Your task to perform on an android device: See recent photos Image 0: 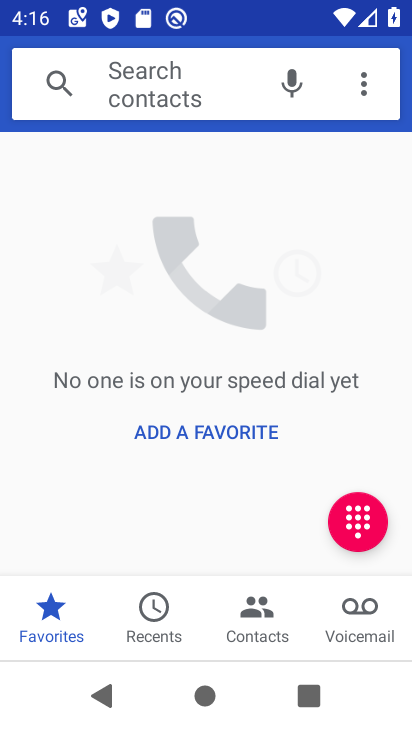
Step 0: press home button
Your task to perform on an android device: See recent photos Image 1: 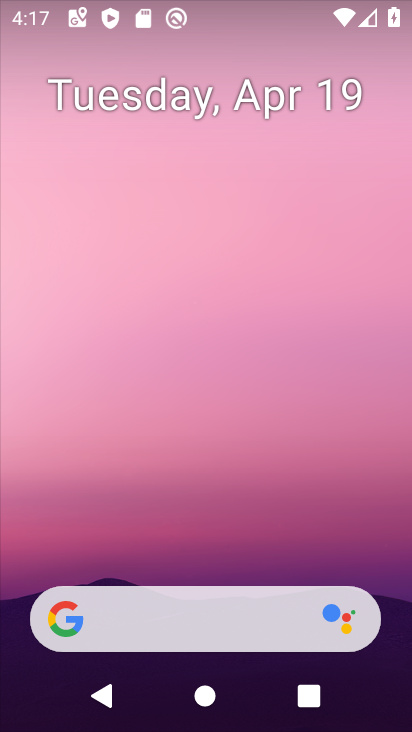
Step 1: drag from (186, 529) to (185, 131)
Your task to perform on an android device: See recent photos Image 2: 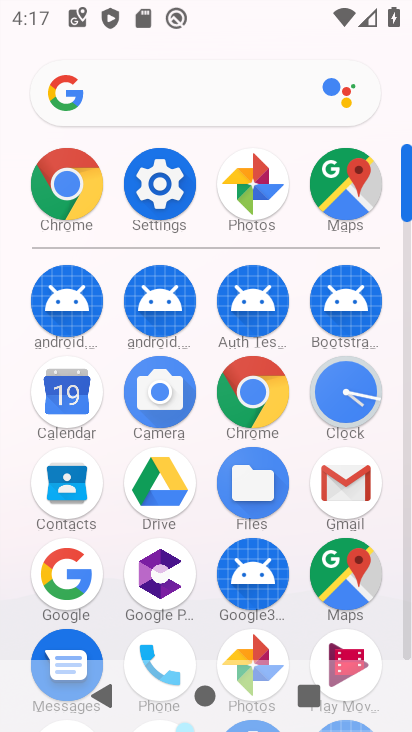
Step 2: click (252, 185)
Your task to perform on an android device: See recent photos Image 3: 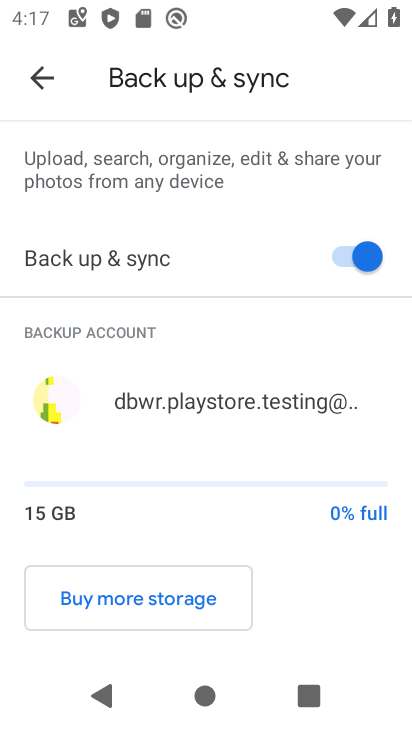
Step 3: press back button
Your task to perform on an android device: See recent photos Image 4: 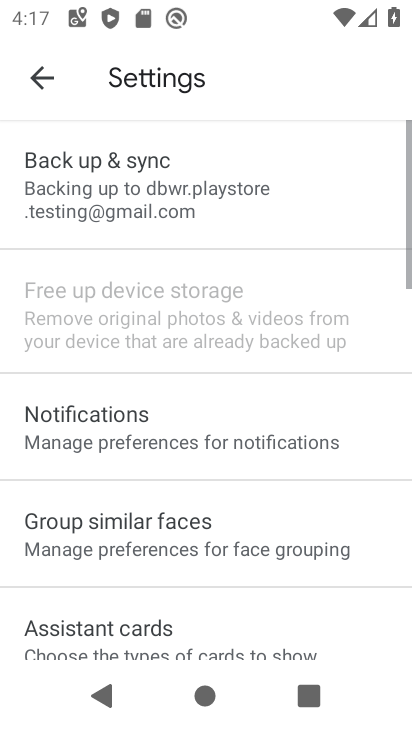
Step 4: press back button
Your task to perform on an android device: See recent photos Image 5: 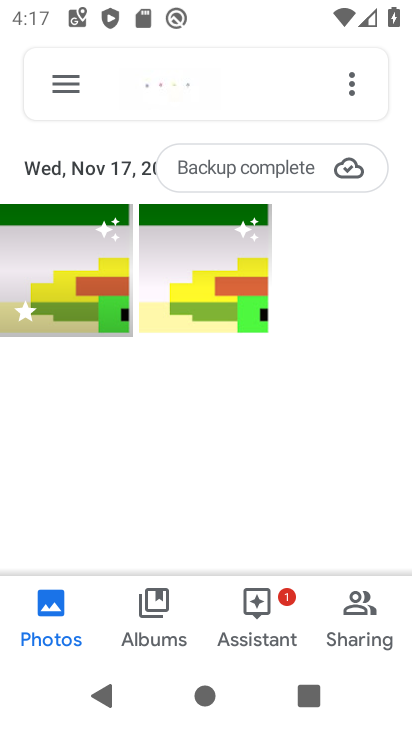
Step 5: click (73, 248)
Your task to perform on an android device: See recent photos Image 6: 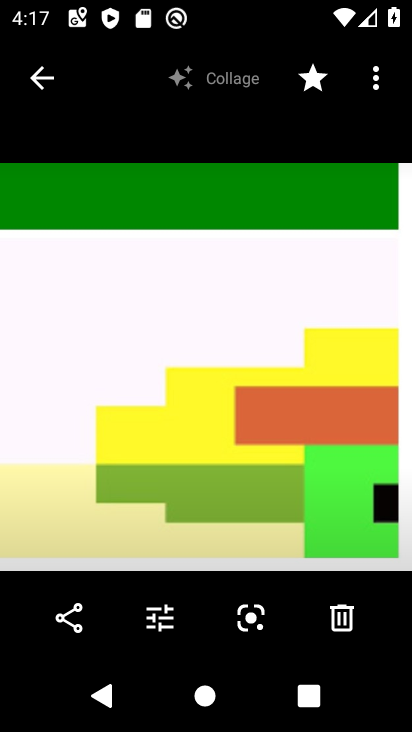
Step 6: task complete